Your task to perform on an android device: turn off sleep mode Image 0: 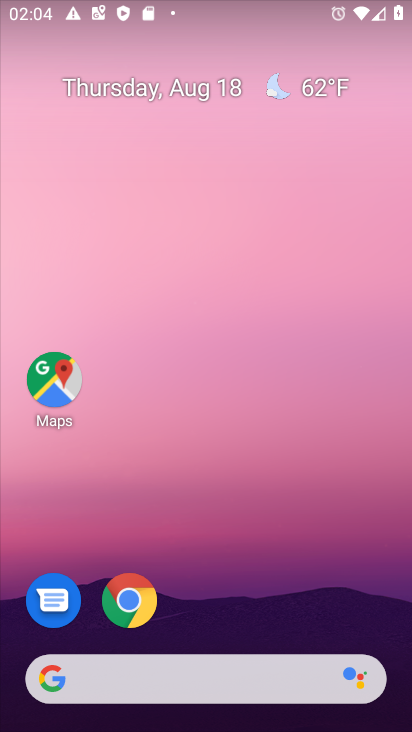
Step 0: press home button
Your task to perform on an android device: turn off sleep mode Image 1: 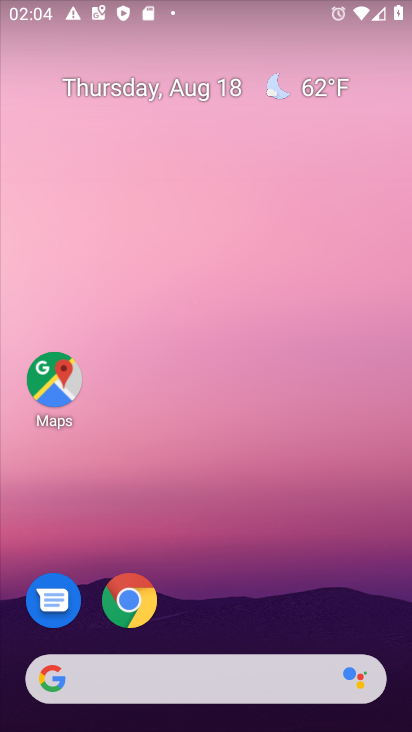
Step 1: drag from (280, 615) to (375, 21)
Your task to perform on an android device: turn off sleep mode Image 2: 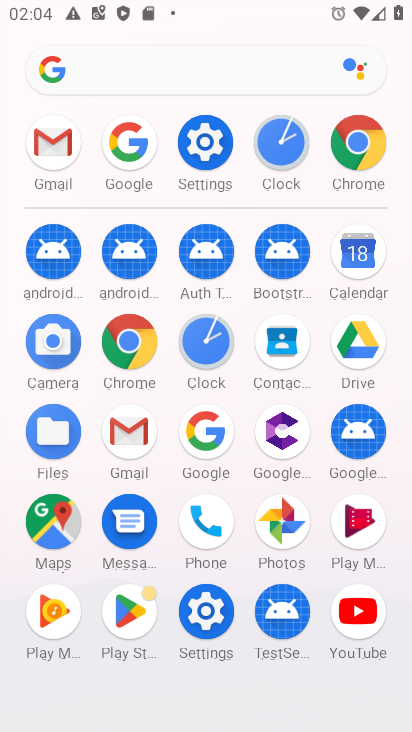
Step 2: click (216, 606)
Your task to perform on an android device: turn off sleep mode Image 3: 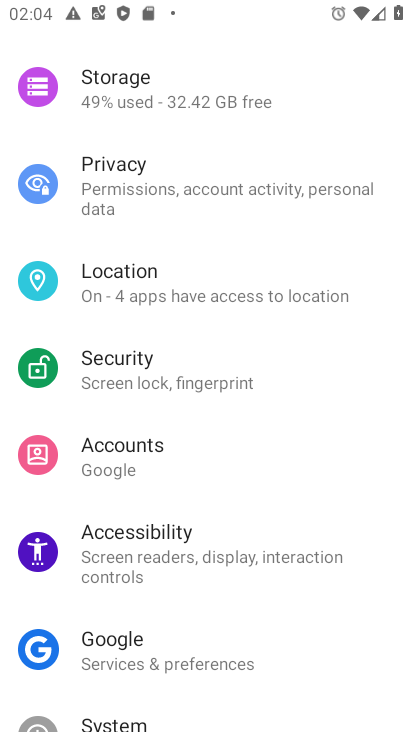
Step 3: drag from (131, 222) to (118, 551)
Your task to perform on an android device: turn off sleep mode Image 4: 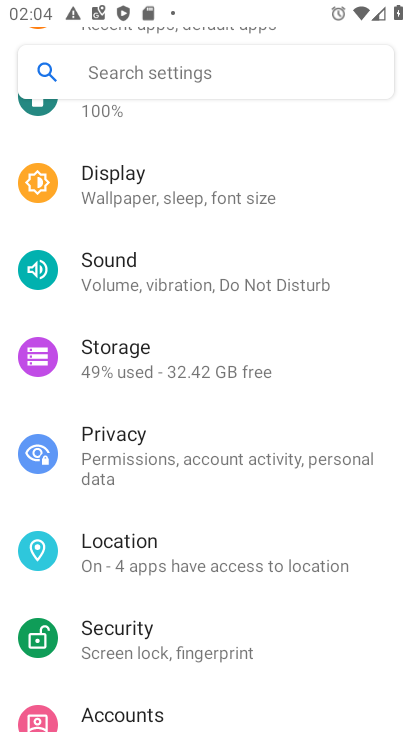
Step 4: click (155, 193)
Your task to perform on an android device: turn off sleep mode Image 5: 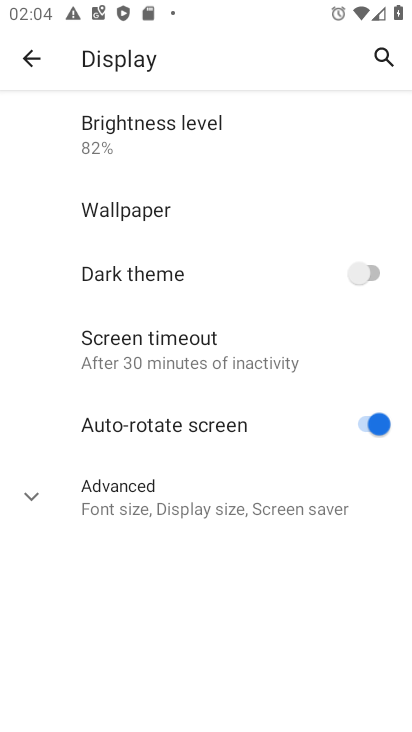
Step 5: click (32, 498)
Your task to perform on an android device: turn off sleep mode Image 6: 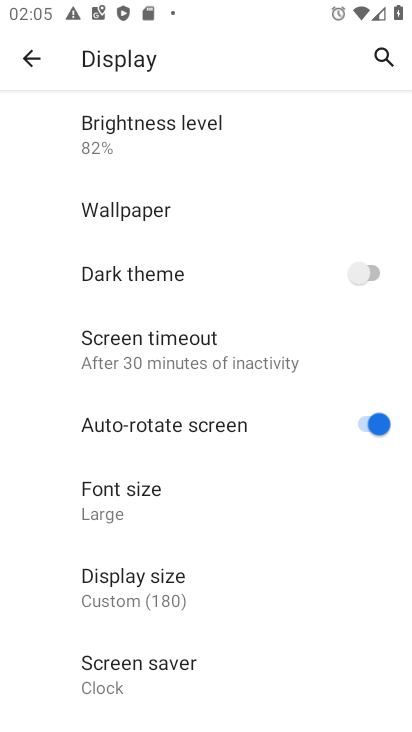
Step 6: task complete